Your task to perform on an android device: Open location settings Image 0: 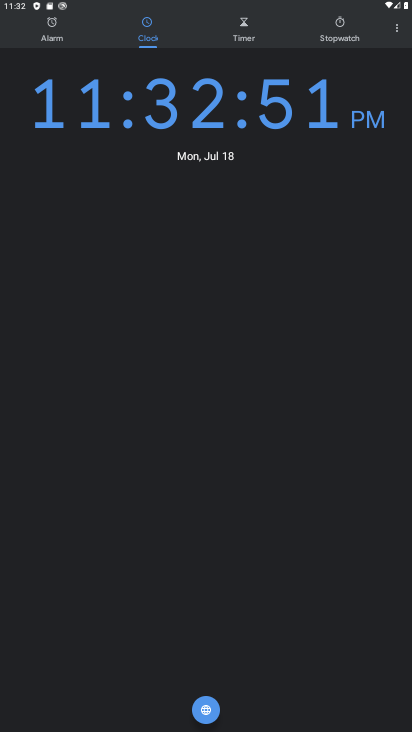
Step 0: press home button
Your task to perform on an android device: Open location settings Image 1: 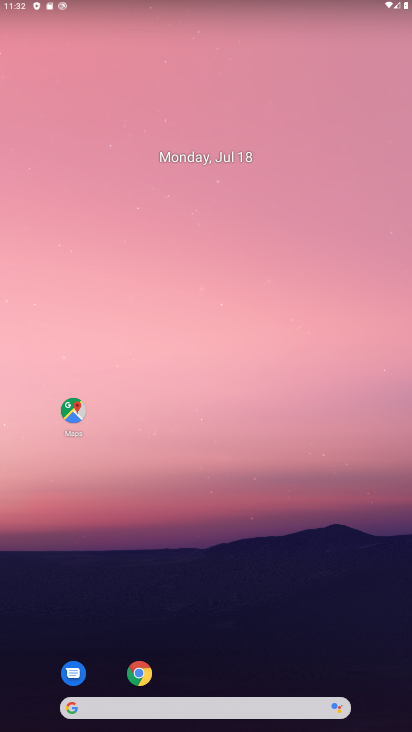
Step 1: drag from (260, 655) to (125, 36)
Your task to perform on an android device: Open location settings Image 2: 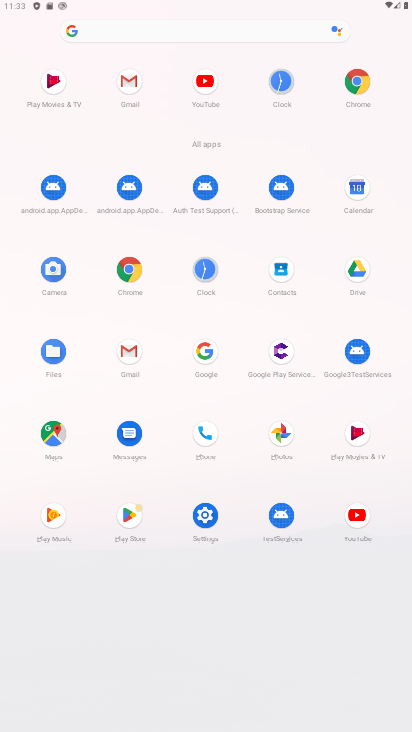
Step 2: click (211, 516)
Your task to perform on an android device: Open location settings Image 3: 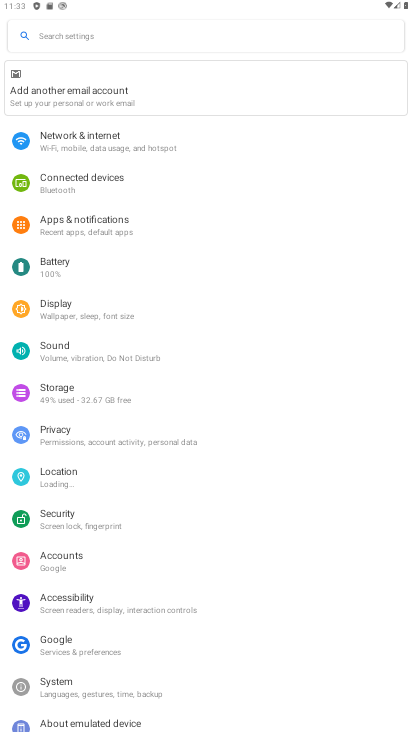
Step 3: click (54, 479)
Your task to perform on an android device: Open location settings Image 4: 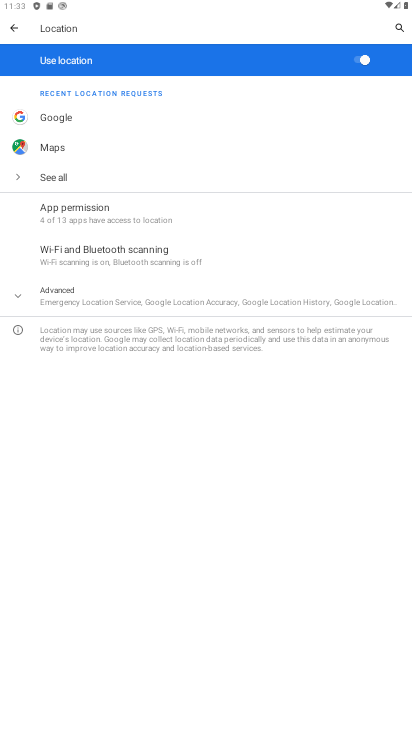
Step 4: task complete